Your task to perform on an android device: set default search engine in the chrome app Image 0: 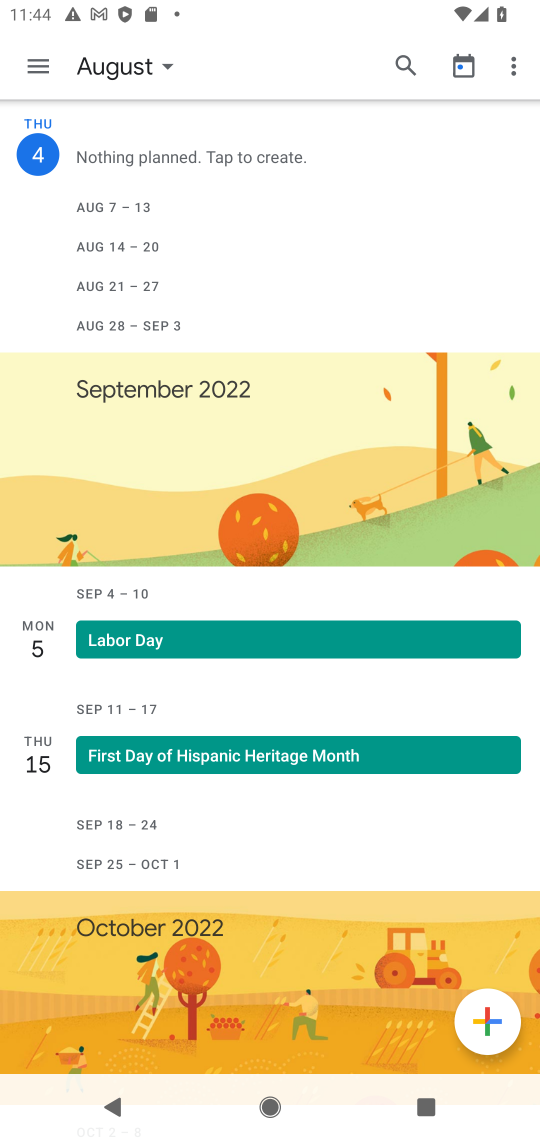
Step 0: drag from (232, 640) to (232, 188)
Your task to perform on an android device: set default search engine in the chrome app Image 1: 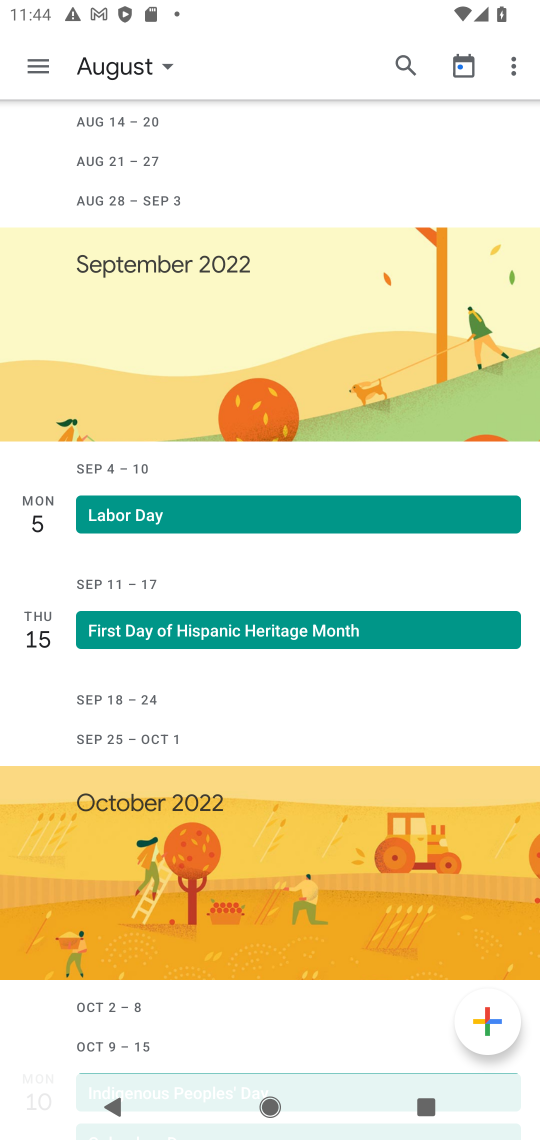
Step 1: drag from (220, 1022) to (250, 542)
Your task to perform on an android device: set default search engine in the chrome app Image 2: 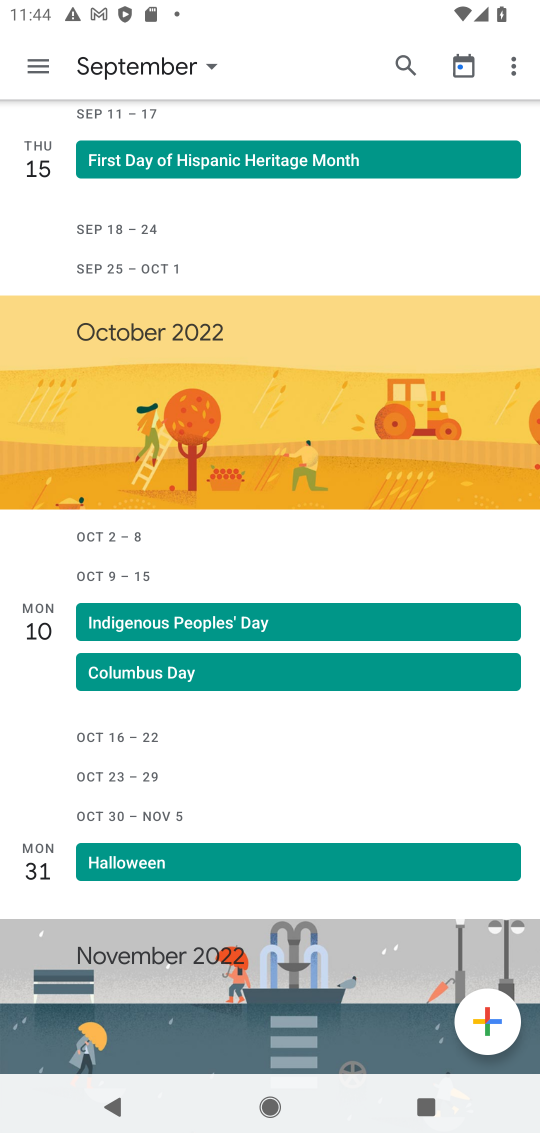
Step 2: drag from (233, 552) to (407, 1135)
Your task to perform on an android device: set default search engine in the chrome app Image 3: 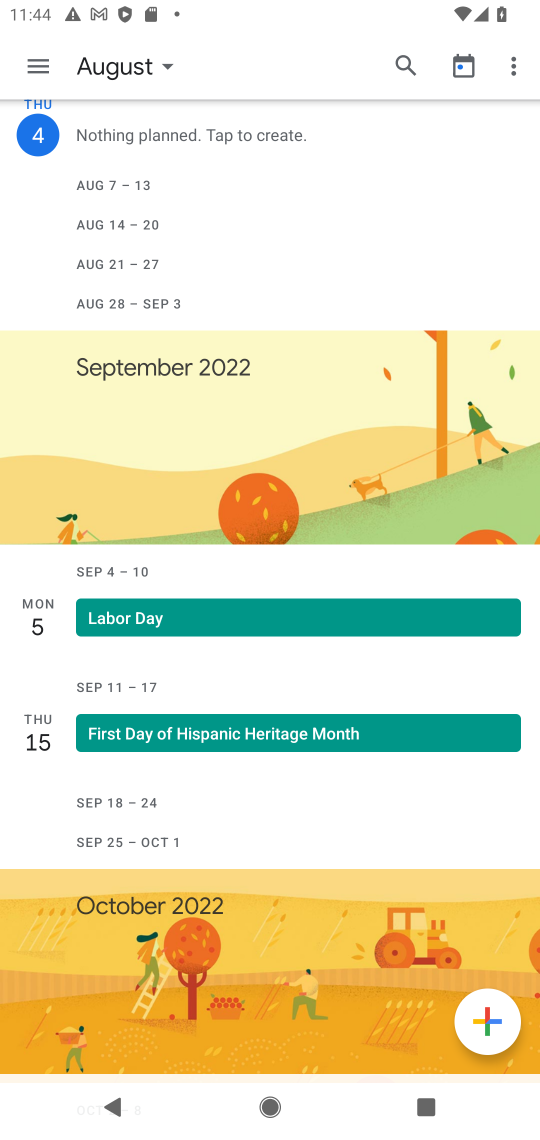
Step 3: click (159, 57)
Your task to perform on an android device: set default search engine in the chrome app Image 4: 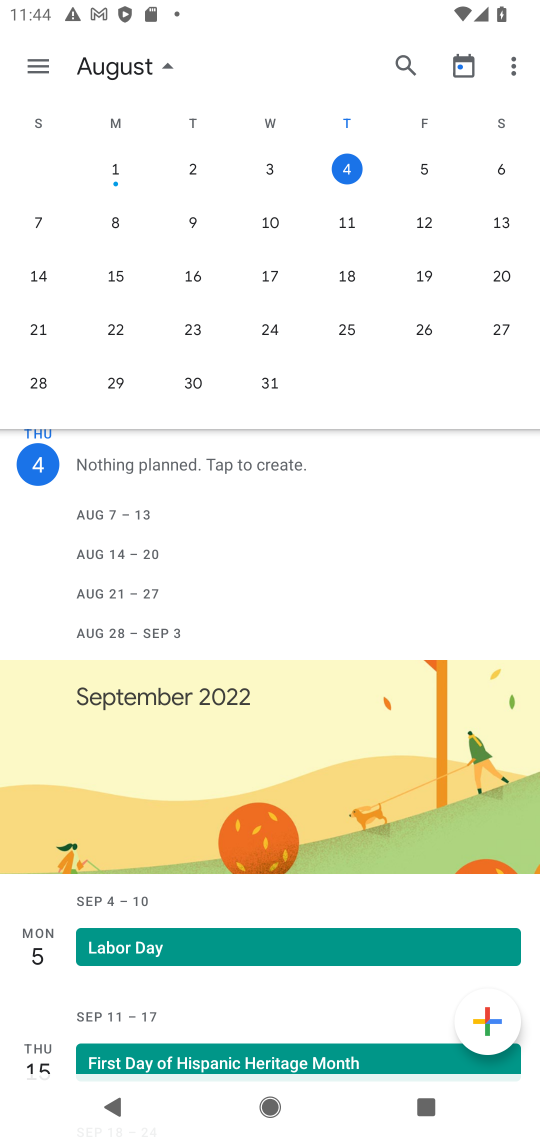
Step 4: press home button
Your task to perform on an android device: set default search engine in the chrome app Image 5: 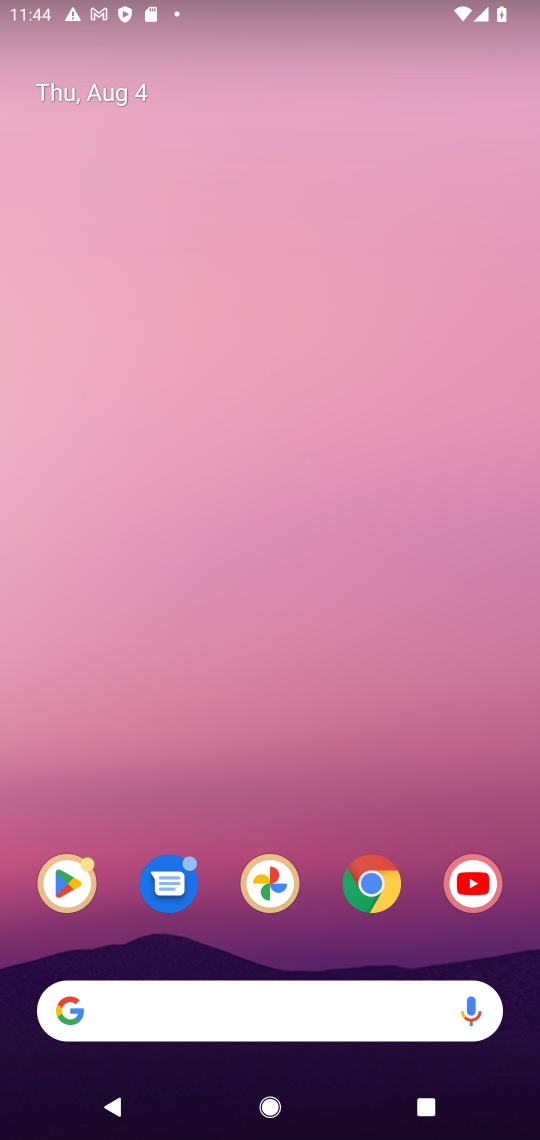
Step 5: drag from (294, 763) to (340, 4)
Your task to perform on an android device: set default search engine in the chrome app Image 6: 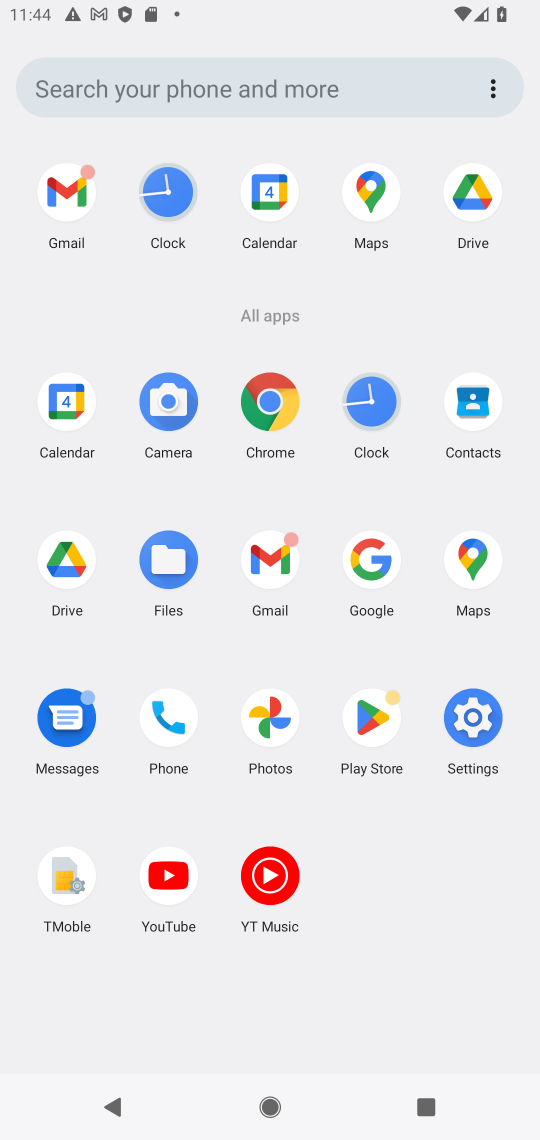
Step 6: click (268, 395)
Your task to perform on an android device: set default search engine in the chrome app Image 7: 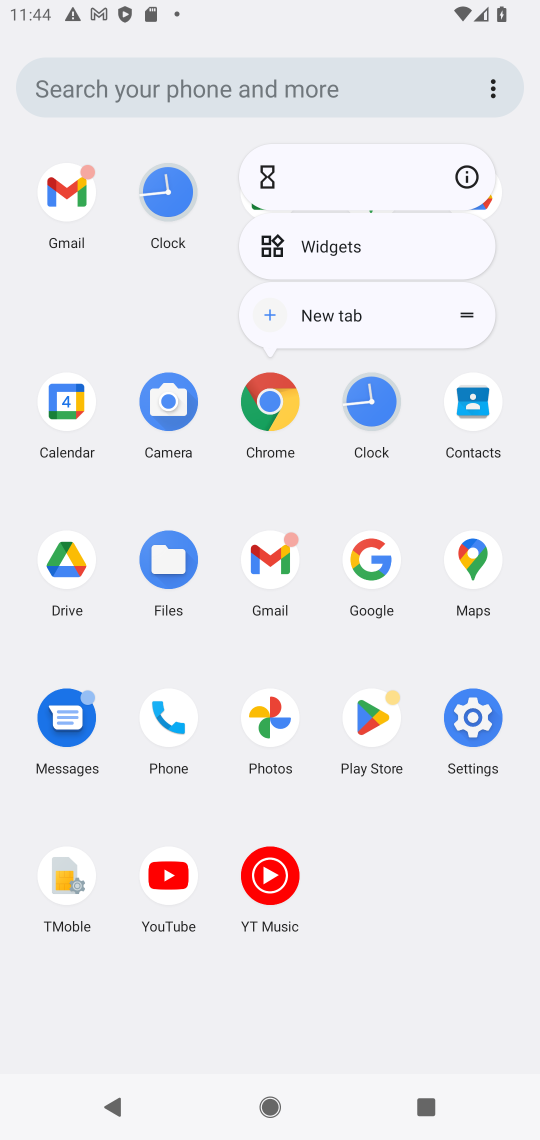
Step 7: click (470, 158)
Your task to perform on an android device: set default search engine in the chrome app Image 8: 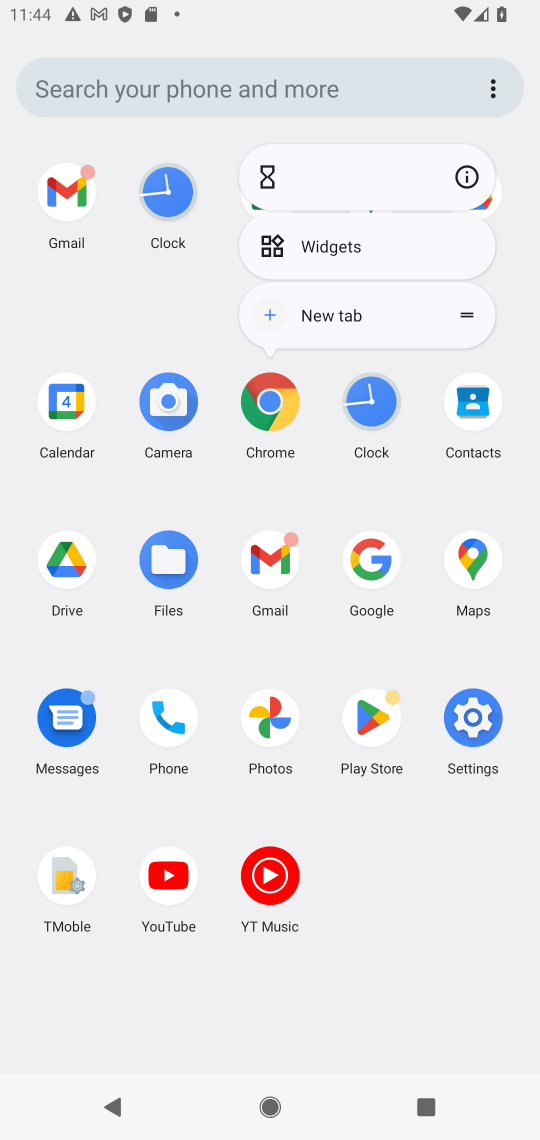
Step 8: click (482, 170)
Your task to perform on an android device: set default search engine in the chrome app Image 9: 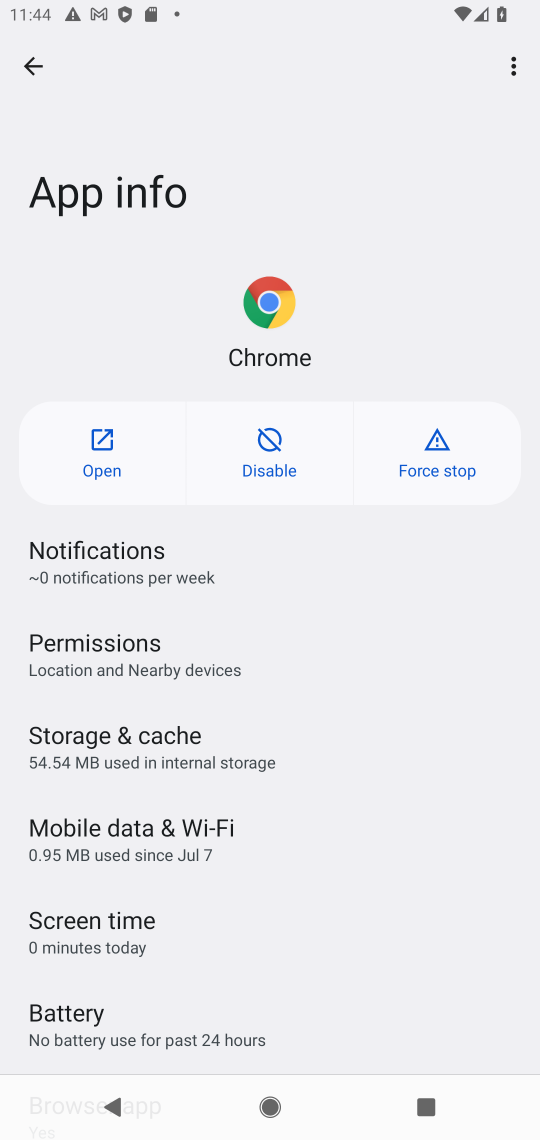
Step 9: click (92, 439)
Your task to perform on an android device: set default search engine in the chrome app Image 10: 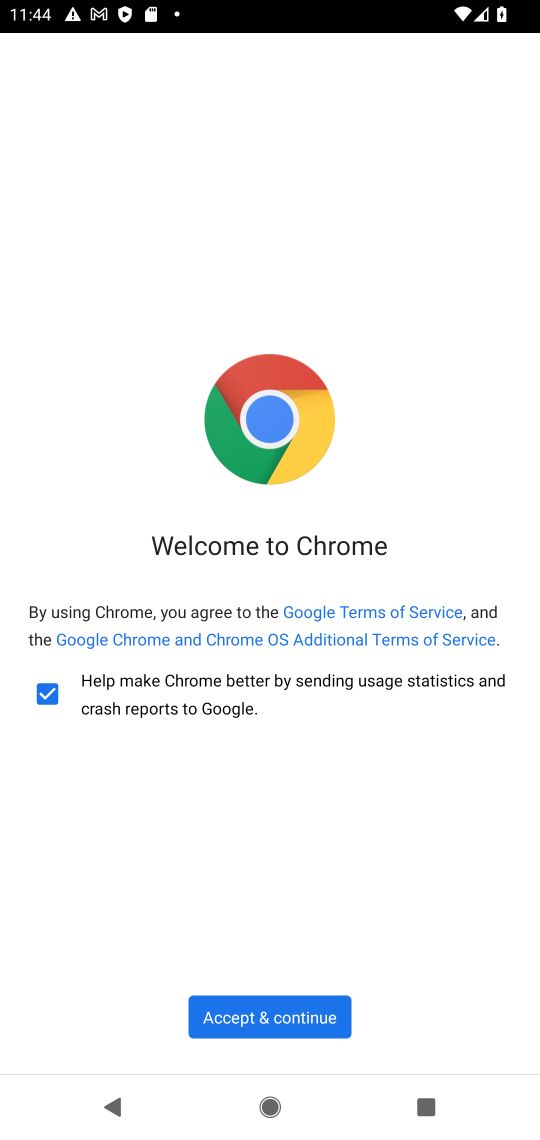
Step 10: click (300, 1028)
Your task to perform on an android device: set default search engine in the chrome app Image 11: 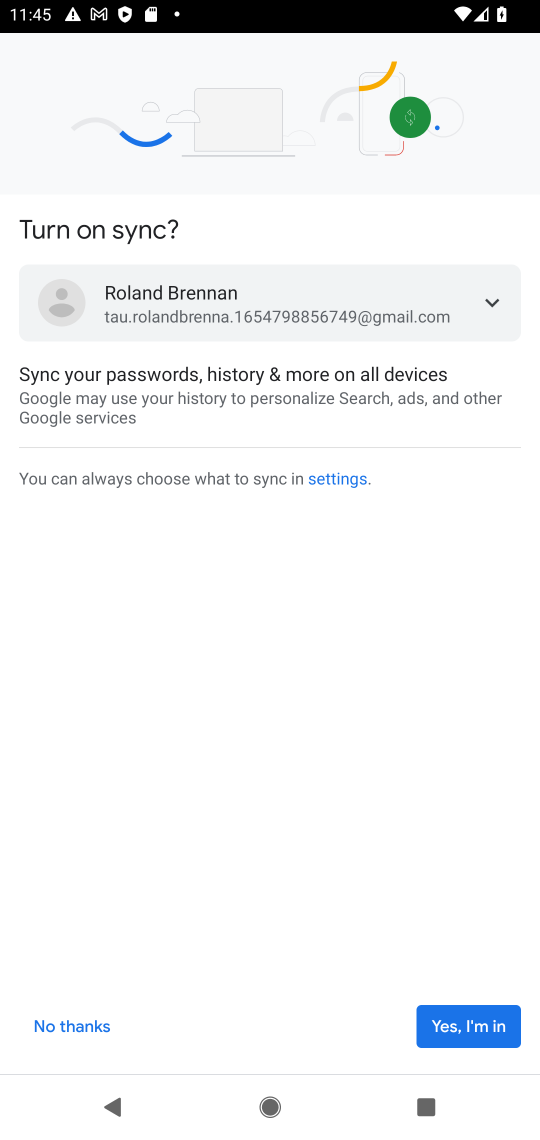
Step 11: click (471, 1014)
Your task to perform on an android device: set default search engine in the chrome app Image 12: 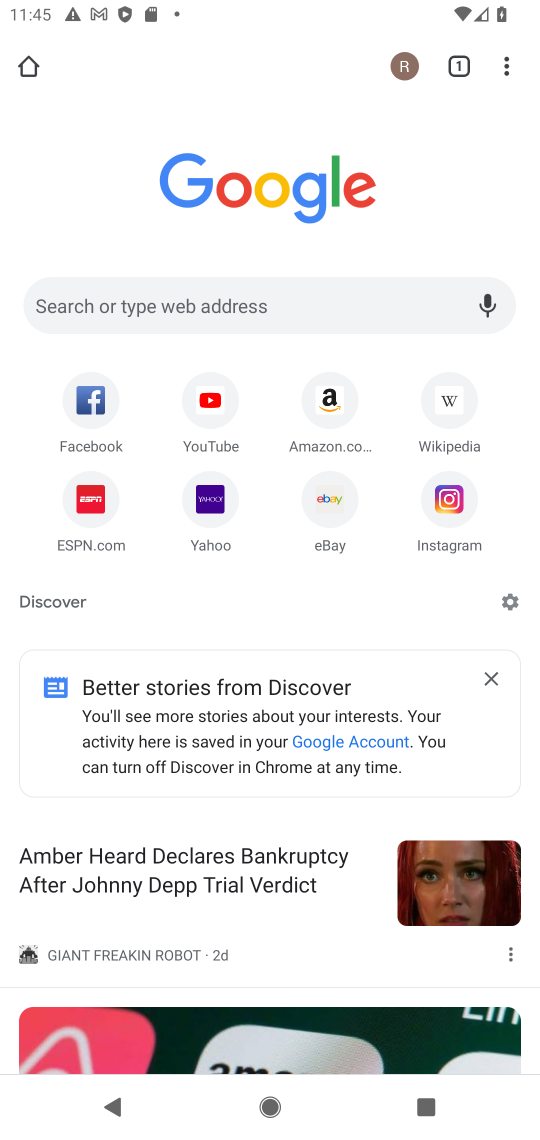
Step 12: drag from (518, 74) to (360, 554)
Your task to perform on an android device: set default search engine in the chrome app Image 13: 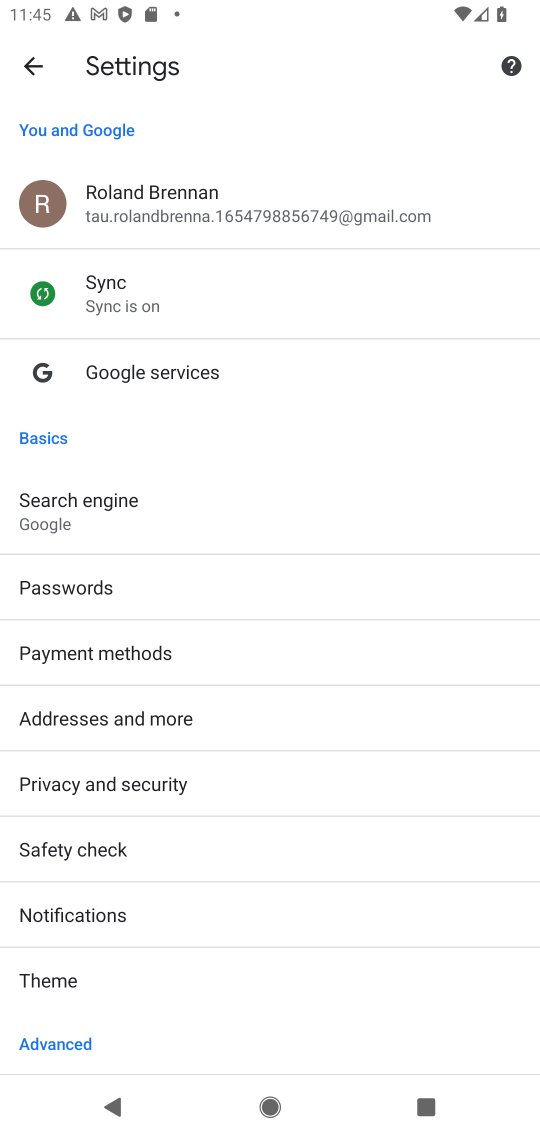
Step 13: click (145, 494)
Your task to perform on an android device: set default search engine in the chrome app Image 14: 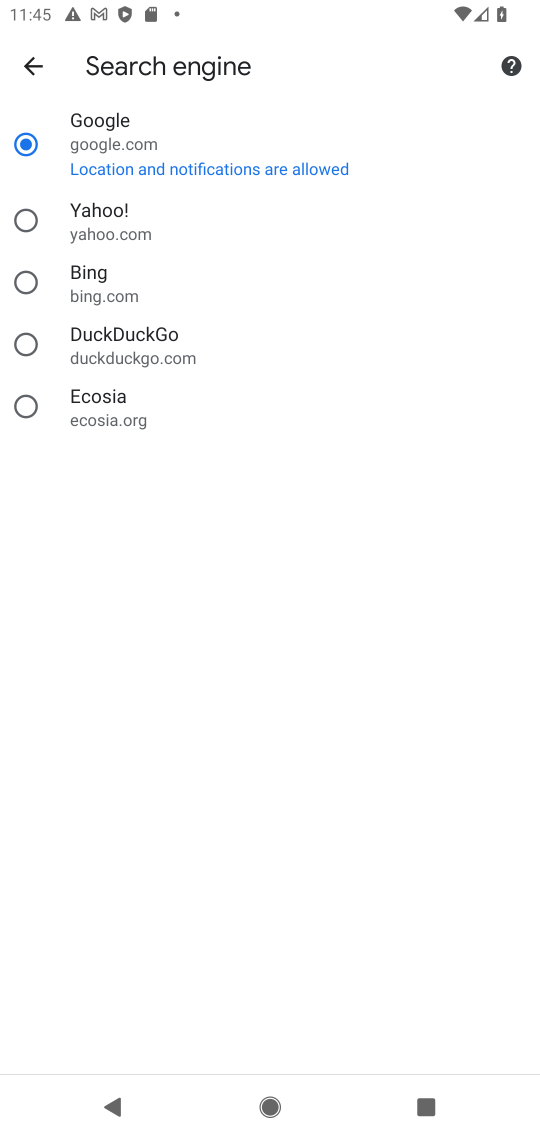
Step 14: task complete